Your task to perform on an android device: Open sound settings Image 0: 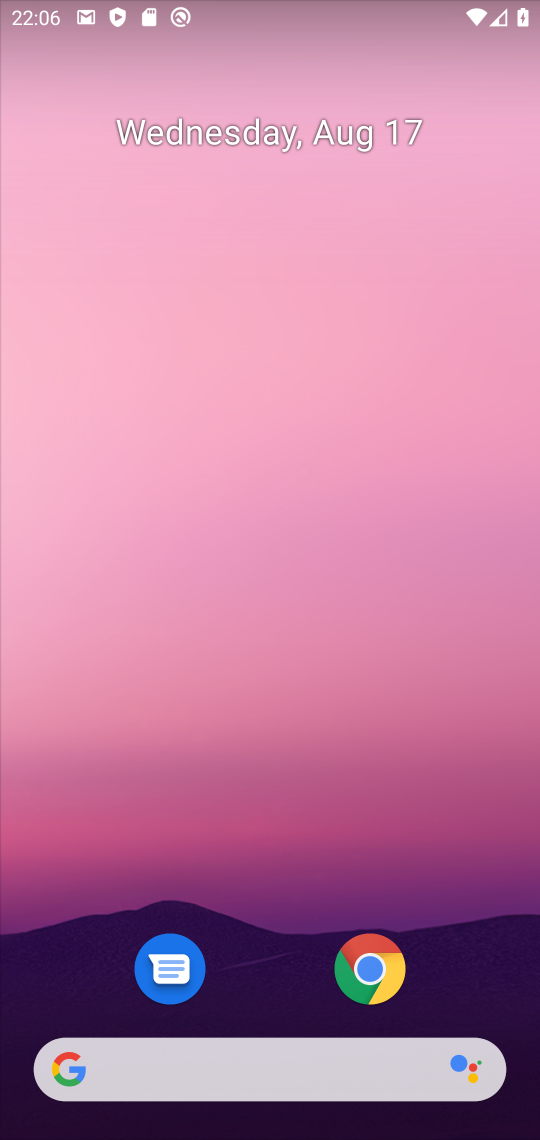
Step 0: drag from (271, 995) to (151, 206)
Your task to perform on an android device: Open sound settings Image 1: 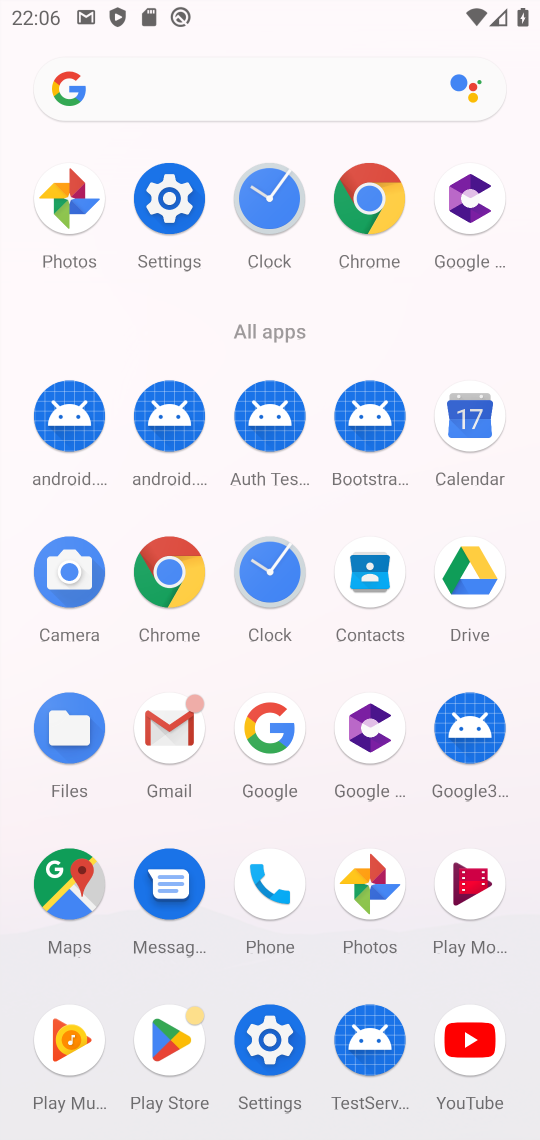
Step 1: click (170, 203)
Your task to perform on an android device: Open sound settings Image 2: 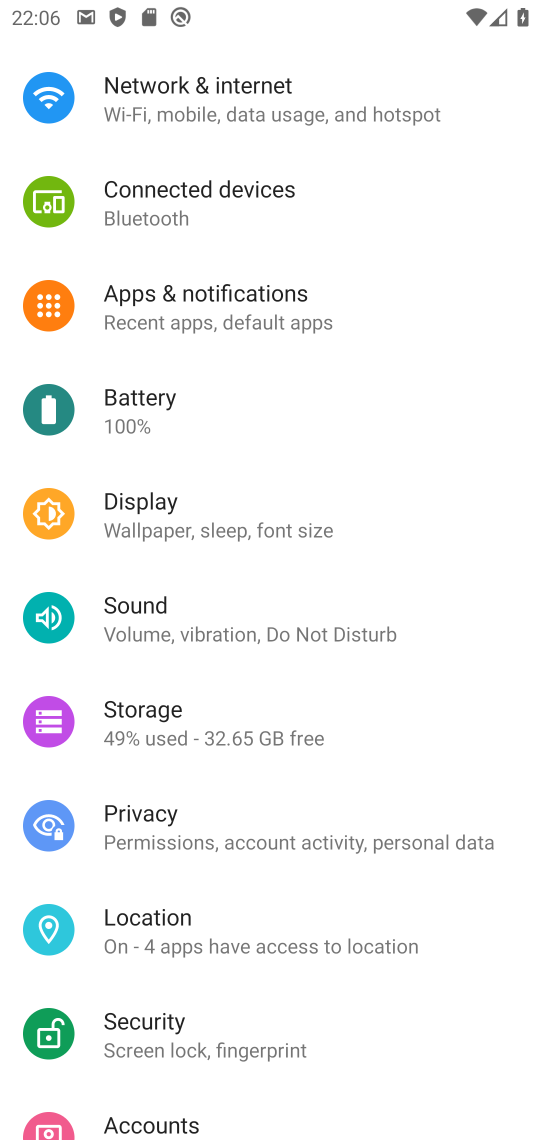
Step 2: click (155, 591)
Your task to perform on an android device: Open sound settings Image 3: 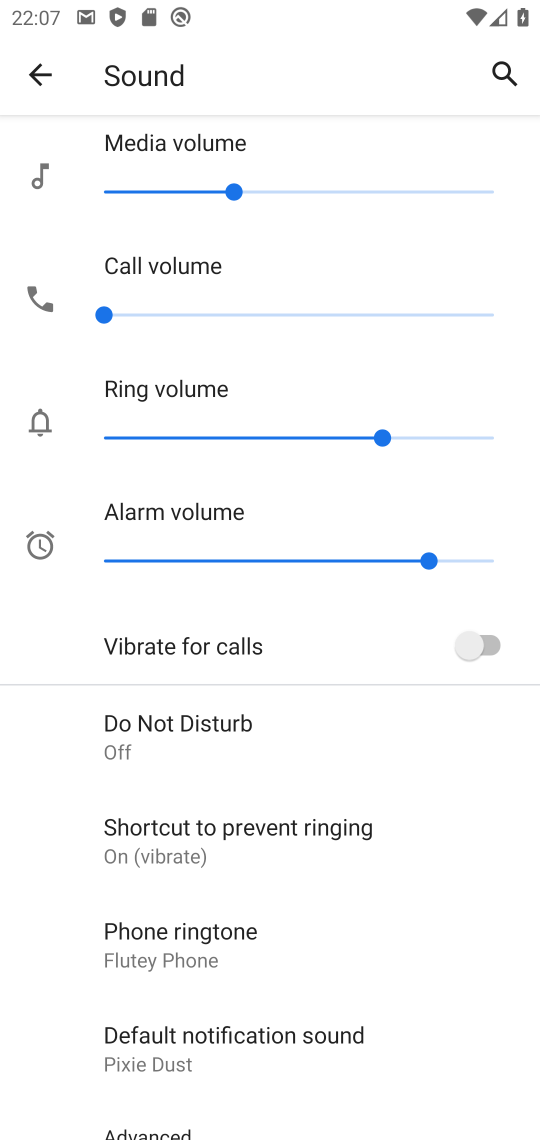
Step 3: task complete